Your task to perform on an android device: Is it going to rain this weekend? Image 0: 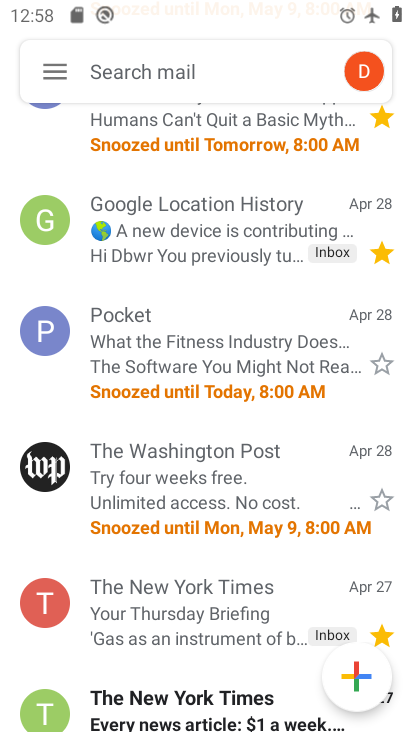
Step 0: press home button
Your task to perform on an android device: Is it going to rain this weekend? Image 1: 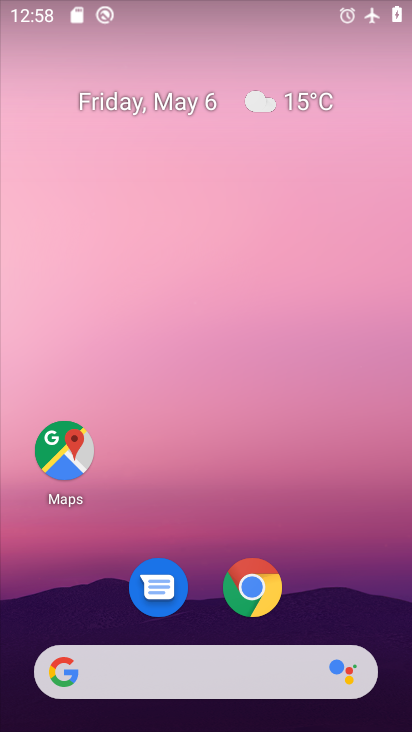
Step 1: click (263, 105)
Your task to perform on an android device: Is it going to rain this weekend? Image 2: 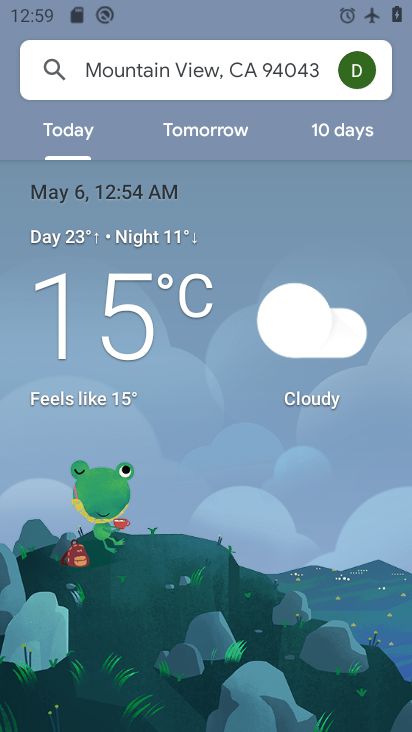
Step 2: click (347, 128)
Your task to perform on an android device: Is it going to rain this weekend? Image 3: 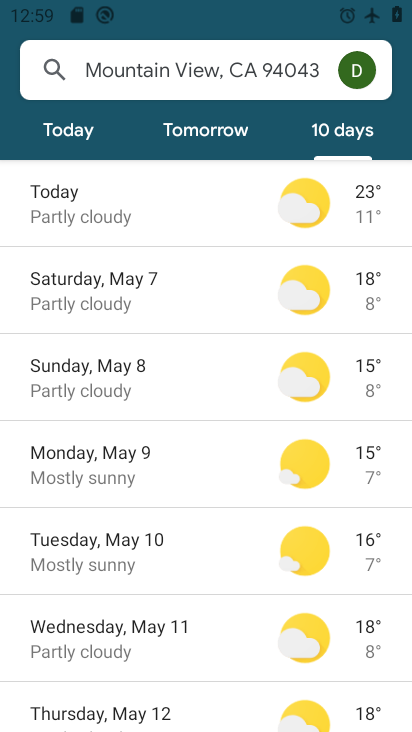
Step 3: task complete